Your task to perform on an android device: allow cookies in the chrome app Image 0: 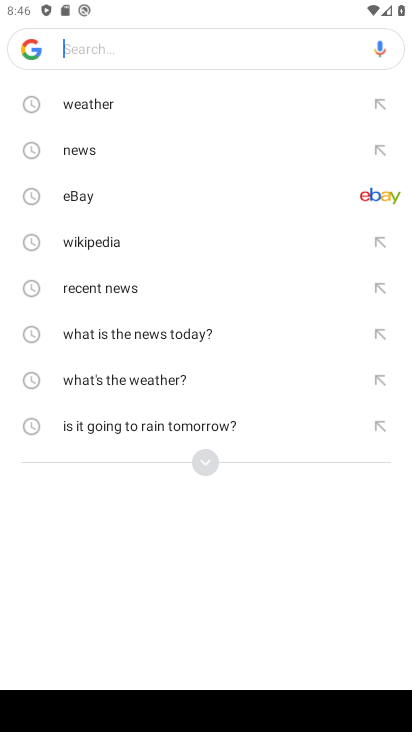
Step 0: press home button
Your task to perform on an android device: allow cookies in the chrome app Image 1: 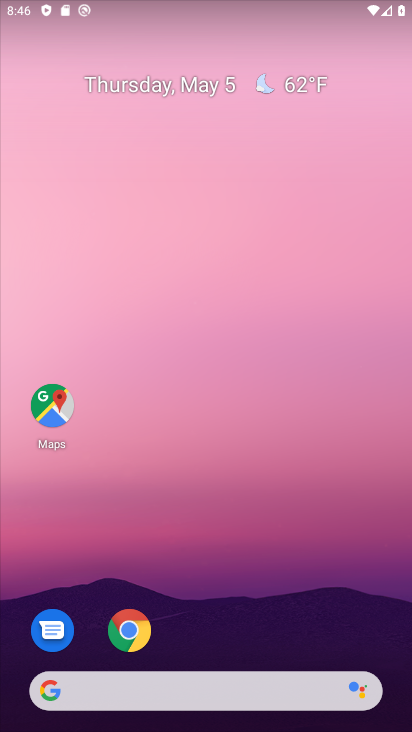
Step 1: press home button
Your task to perform on an android device: allow cookies in the chrome app Image 2: 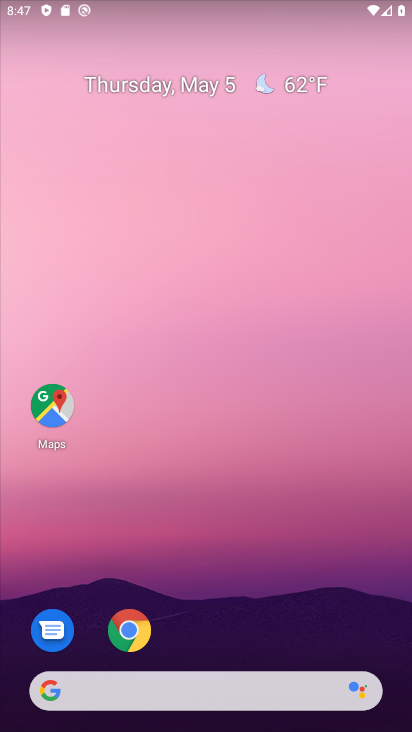
Step 2: drag from (233, 650) to (217, 50)
Your task to perform on an android device: allow cookies in the chrome app Image 3: 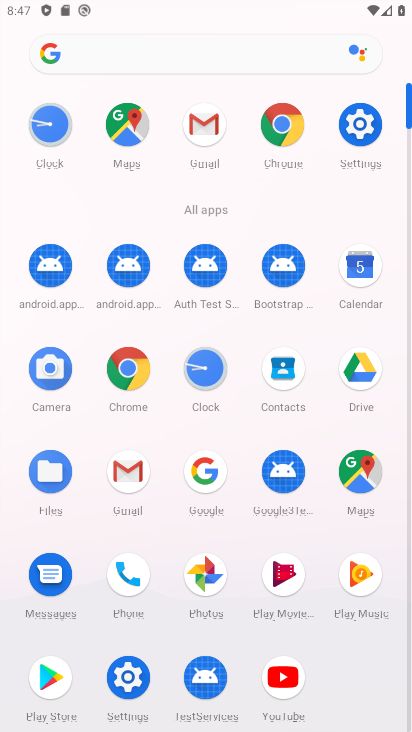
Step 3: click (126, 357)
Your task to perform on an android device: allow cookies in the chrome app Image 4: 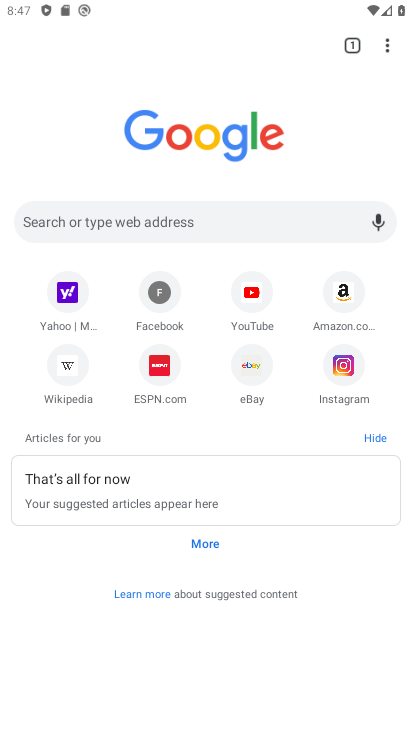
Step 4: click (386, 45)
Your task to perform on an android device: allow cookies in the chrome app Image 5: 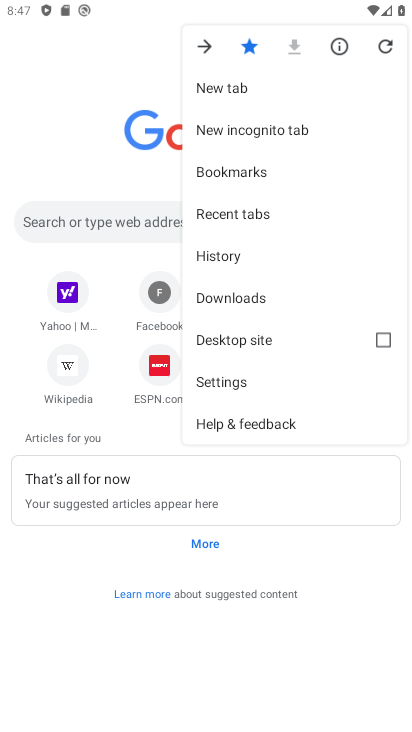
Step 5: click (257, 383)
Your task to perform on an android device: allow cookies in the chrome app Image 6: 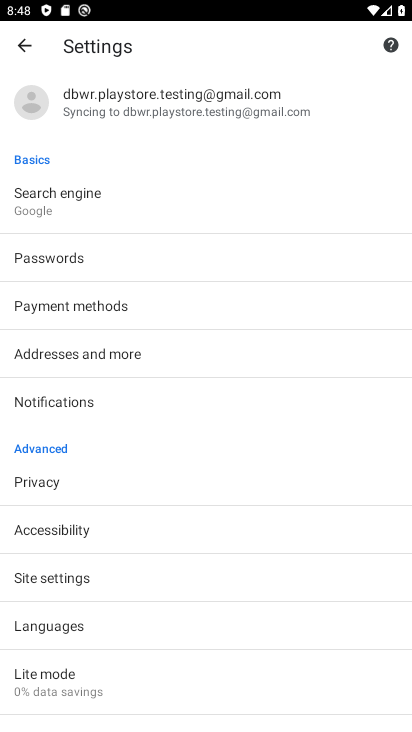
Step 6: click (104, 577)
Your task to perform on an android device: allow cookies in the chrome app Image 7: 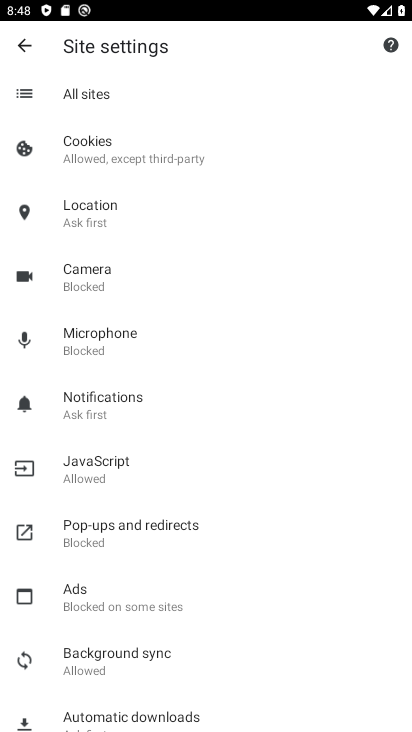
Step 7: click (124, 151)
Your task to perform on an android device: allow cookies in the chrome app Image 8: 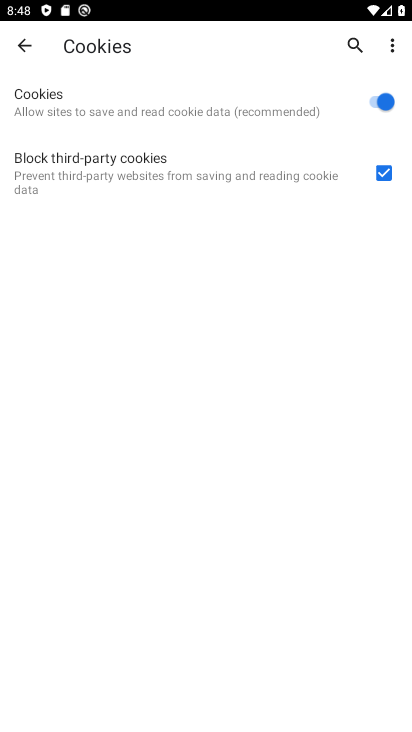
Step 8: task complete